Your task to perform on an android device: Open Google Maps and go to "Timeline" Image 0: 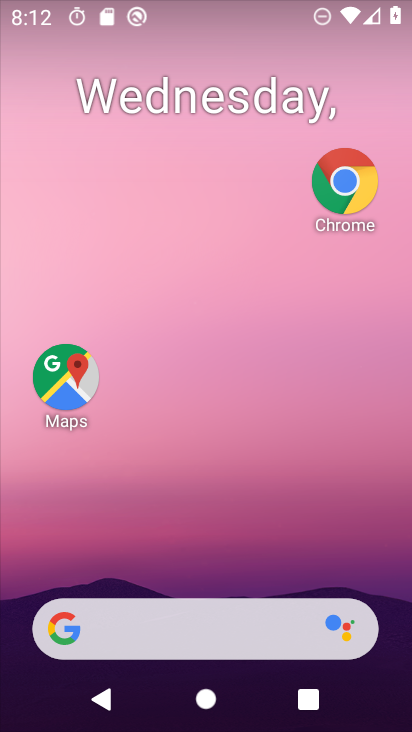
Step 0: click (49, 382)
Your task to perform on an android device: Open Google Maps and go to "Timeline" Image 1: 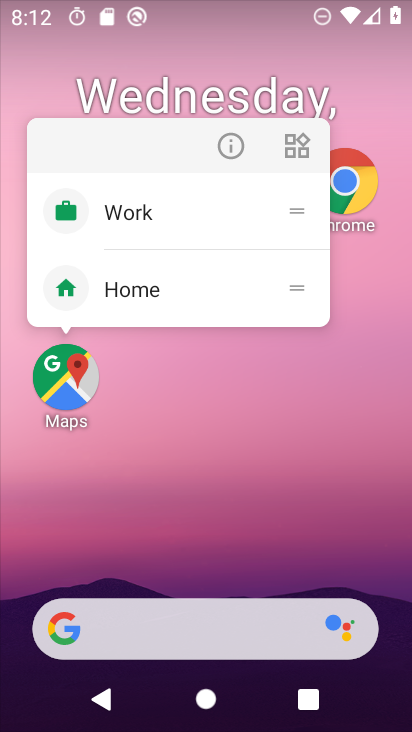
Step 1: click (69, 374)
Your task to perform on an android device: Open Google Maps and go to "Timeline" Image 2: 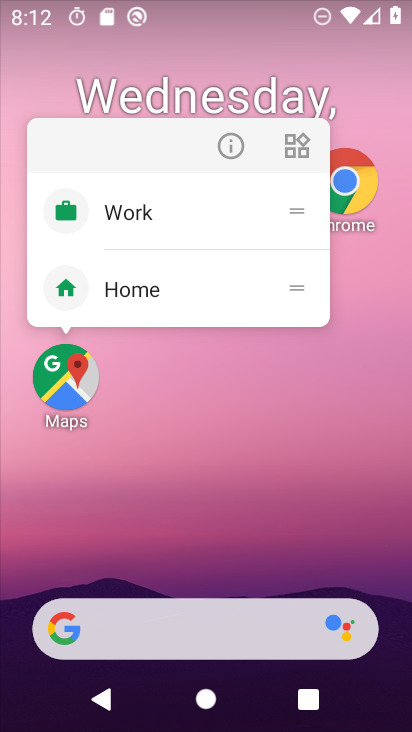
Step 2: drag from (159, 670) to (154, 349)
Your task to perform on an android device: Open Google Maps and go to "Timeline" Image 3: 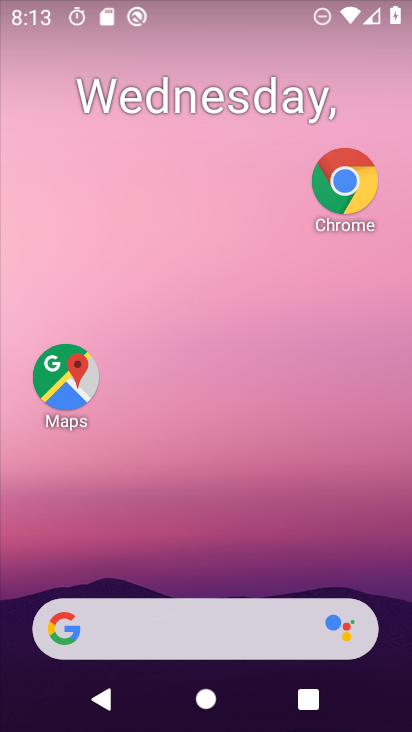
Step 3: drag from (172, 671) to (187, 316)
Your task to perform on an android device: Open Google Maps and go to "Timeline" Image 4: 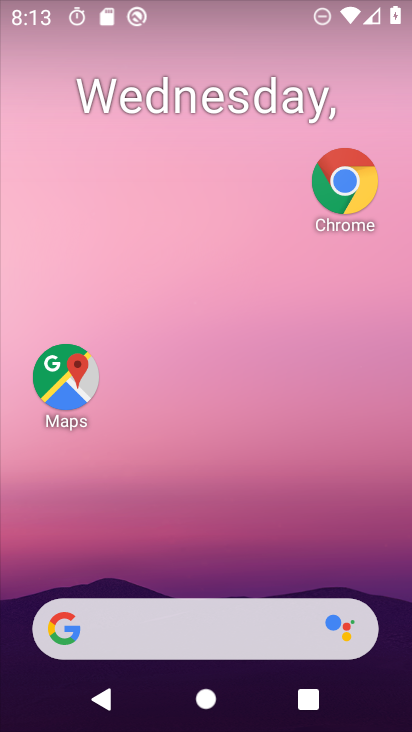
Step 4: drag from (166, 672) to (220, 103)
Your task to perform on an android device: Open Google Maps and go to "Timeline" Image 5: 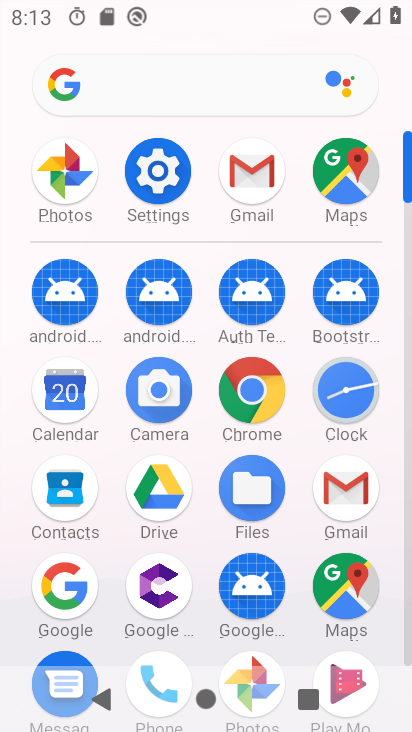
Step 5: click (329, 194)
Your task to perform on an android device: Open Google Maps and go to "Timeline" Image 6: 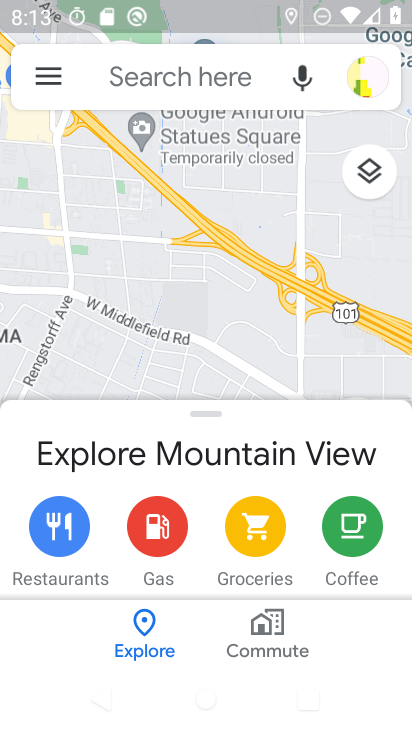
Step 6: click (57, 76)
Your task to perform on an android device: Open Google Maps and go to "Timeline" Image 7: 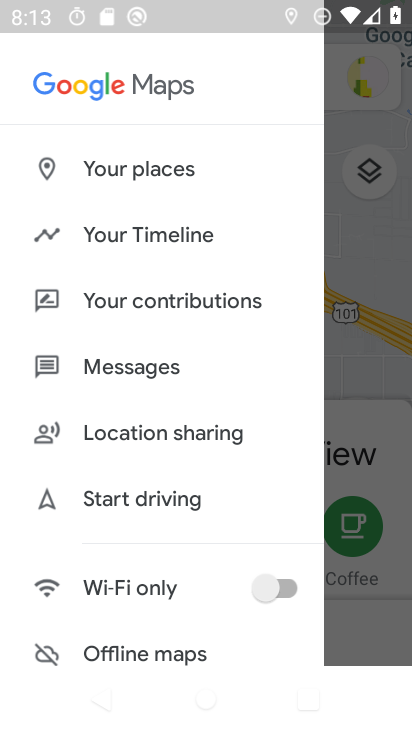
Step 7: click (146, 240)
Your task to perform on an android device: Open Google Maps and go to "Timeline" Image 8: 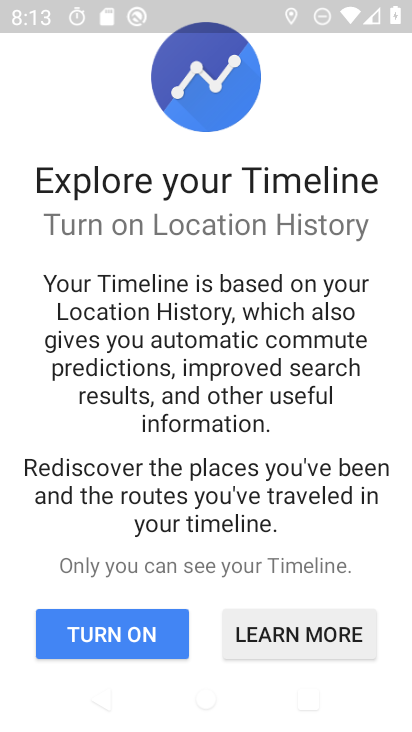
Step 8: click (119, 632)
Your task to perform on an android device: Open Google Maps and go to "Timeline" Image 9: 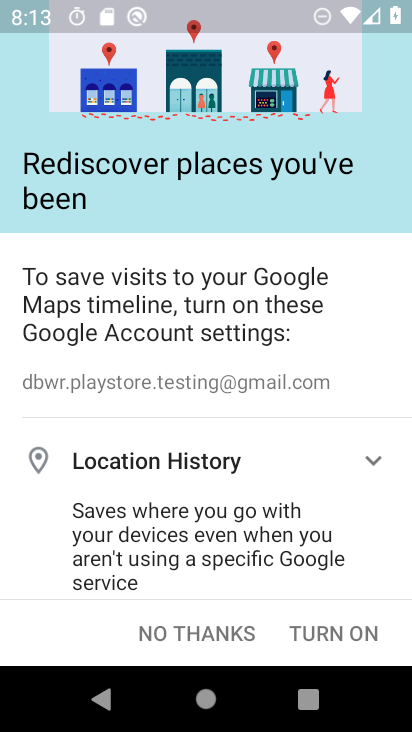
Step 9: click (167, 637)
Your task to perform on an android device: Open Google Maps and go to "Timeline" Image 10: 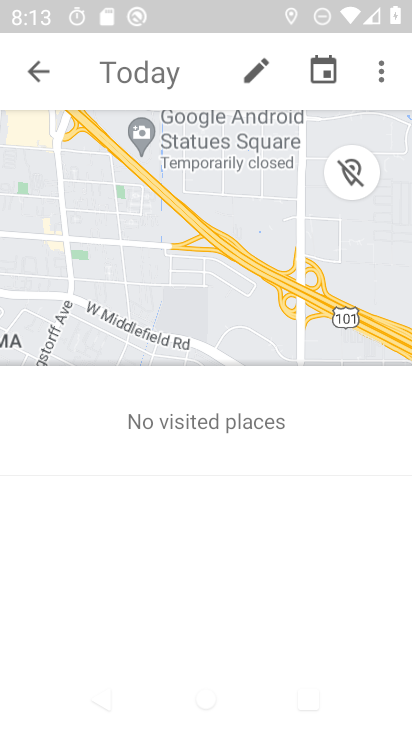
Step 10: task complete